Your task to perform on an android device: move a message to another label in the gmail app Image 0: 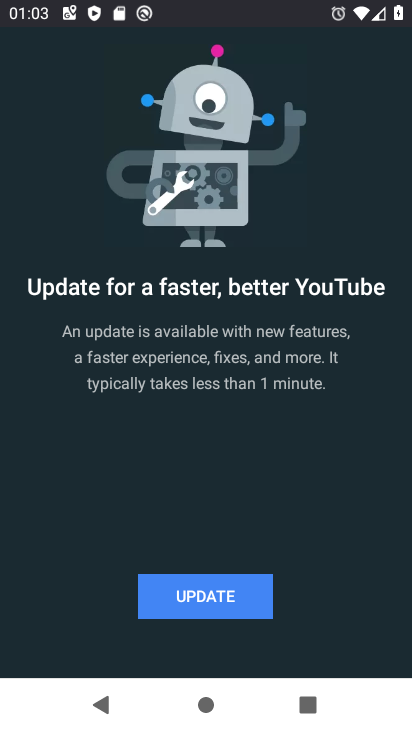
Step 0: press home button
Your task to perform on an android device: move a message to another label in the gmail app Image 1: 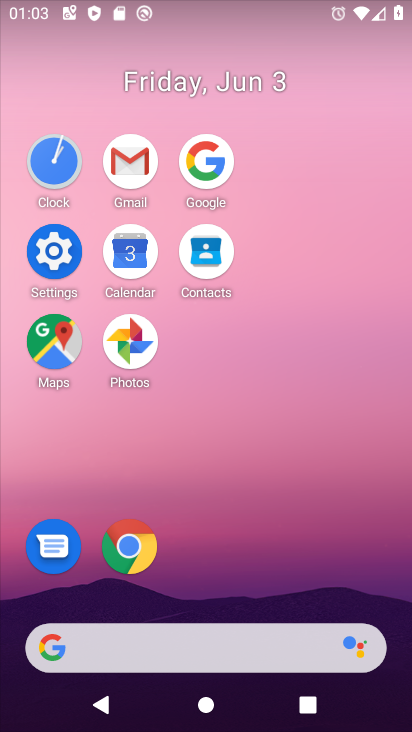
Step 1: click (143, 161)
Your task to perform on an android device: move a message to another label in the gmail app Image 2: 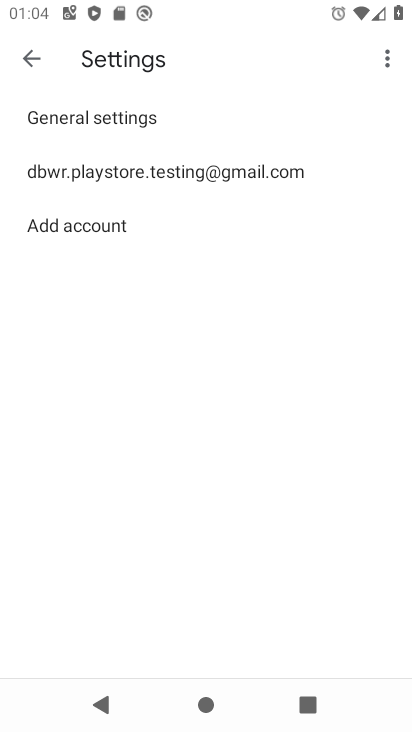
Step 2: click (84, 178)
Your task to perform on an android device: move a message to another label in the gmail app Image 3: 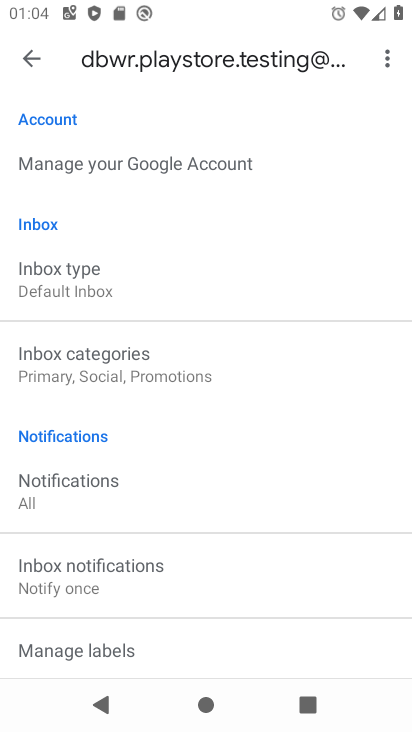
Step 3: drag from (118, 583) to (166, 203)
Your task to perform on an android device: move a message to another label in the gmail app Image 4: 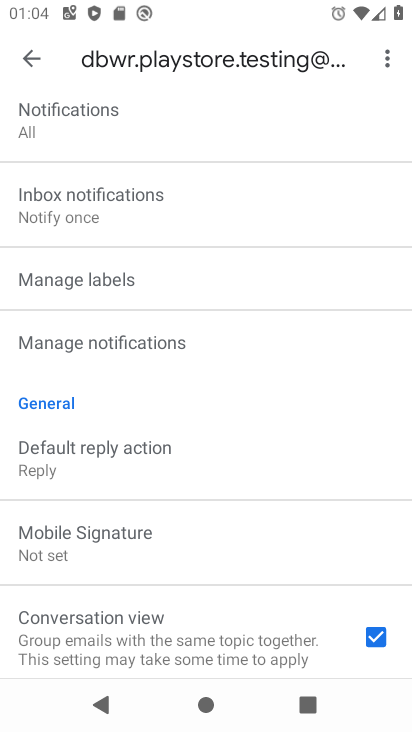
Step 4: drag from (250, 149) to (220, 470)
Your task to perform on an android device: move a message to another label in the gmail app Image 5: 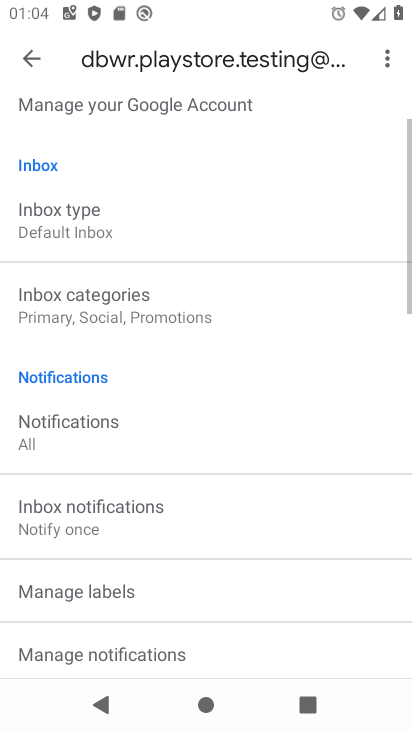
Step 5: click (33, 64)
Your task to perform on an android device: move a message to another label in the gmail app Image 6: 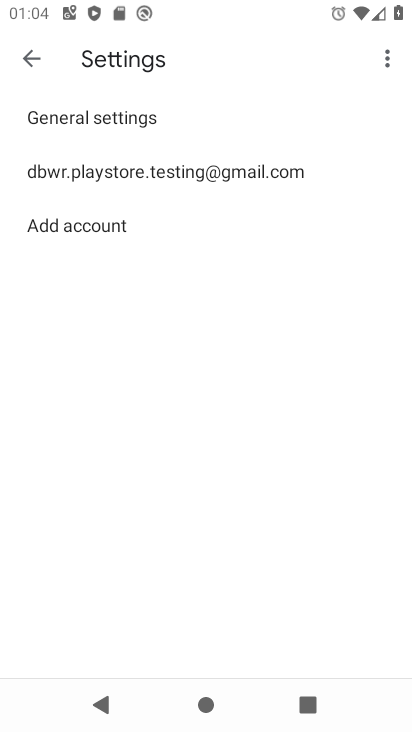
Step 6: click (33, 64)
Your task to perform on an android device: move a message to another label in the gmail app Image 7: 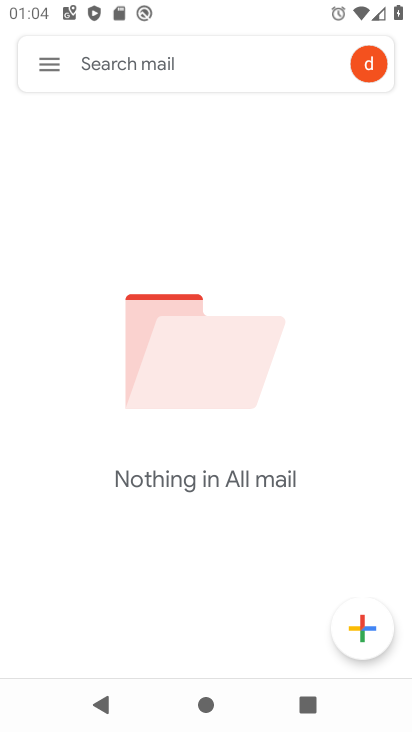
Step 7: task complete